Your task to perform on an android device: Show me recent news Image 0: 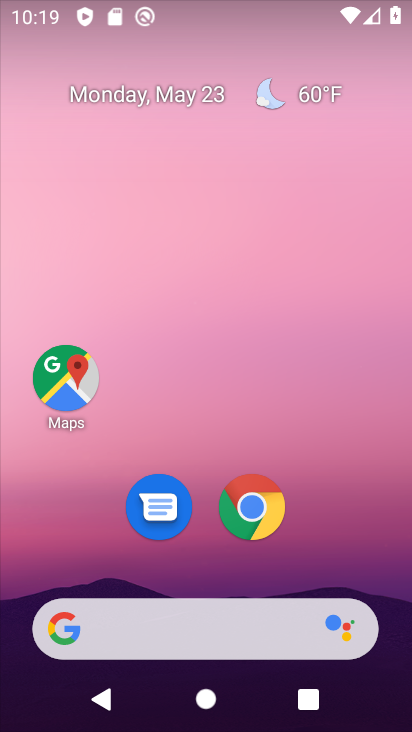
Step 0: drag from (295, 455) to (265, 142)
Your task to perform on an android device: Show me recent news Image 1: 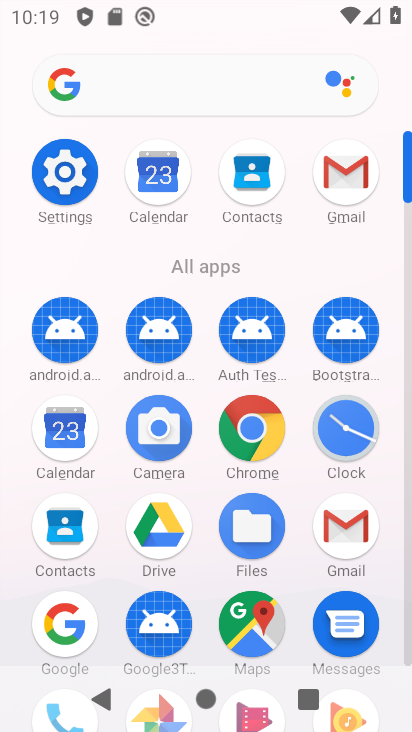
Step 1: click (59, 624)
Your task to perform on an android device: Show me recent news Image 2: 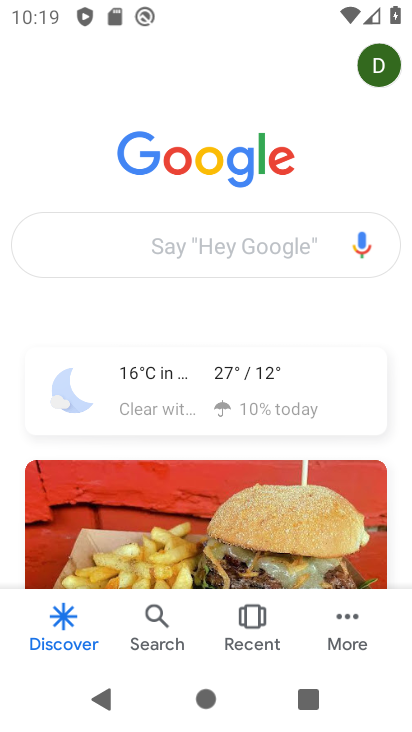
Step 2: click (210, 248)
Your task to perform on an android device: Show me recent news Image 3: 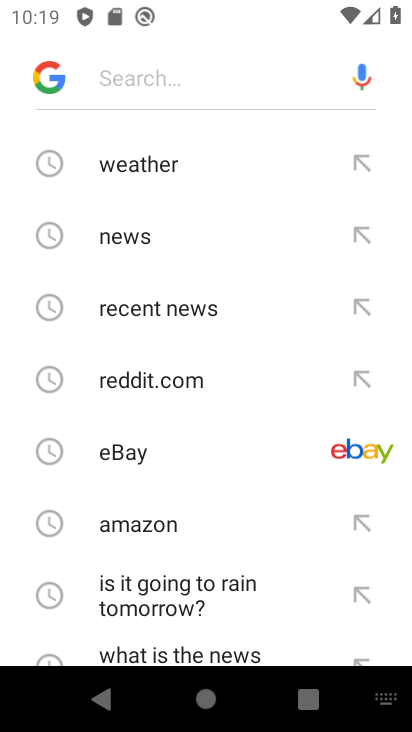
Step 3: type "recent news"
Your task to perform on an android device: Show me recent news Image 4: 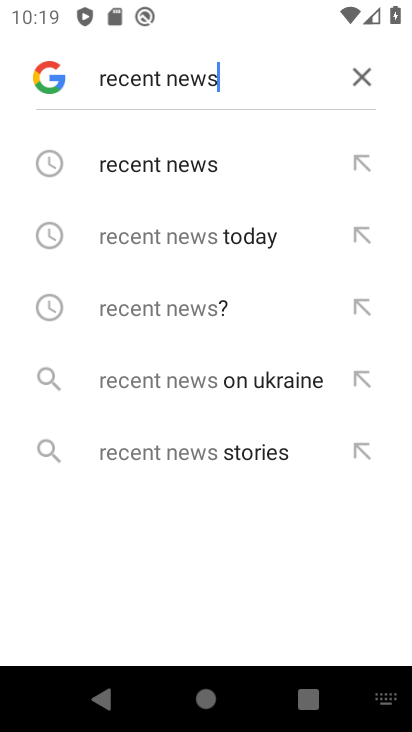
Step 4: click (197, 169)
Your task to perform on an android device: Show me recent news Image 5: 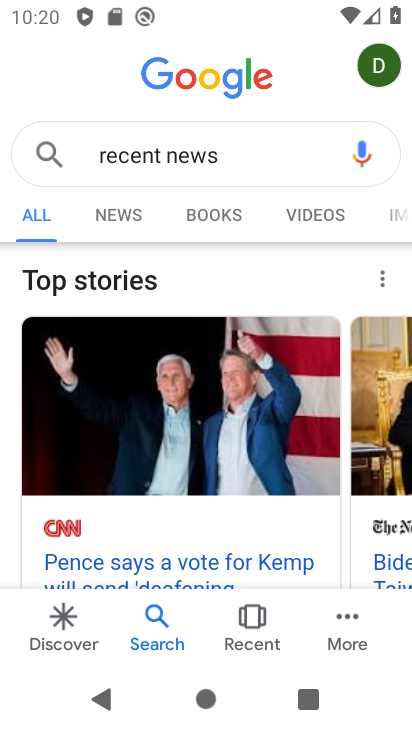
Step 5: task complete